Your task to perform on an android device: open a bookmark in the chrome app Image 0: 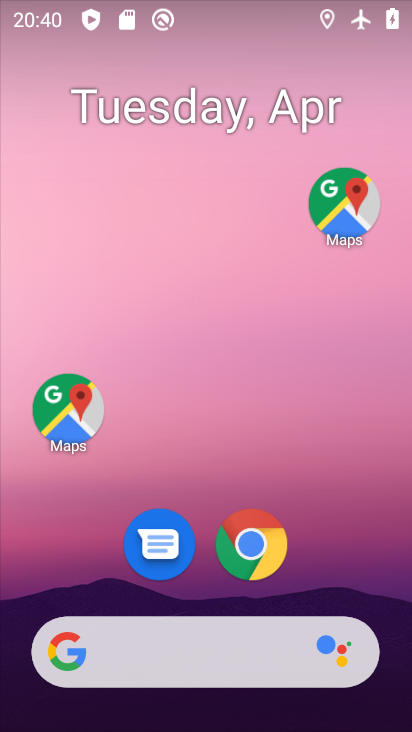
Step 0: drag from (142, 657) to (299, 31)
Your task to perform on an android device: open a bookmark in the chrome app Image 1: 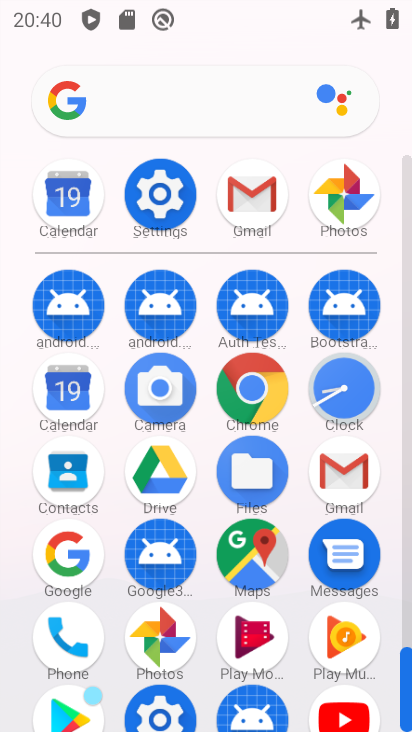
Step 1: drag from (190, 586) to (350, 172)
Your task to perform on an android device: open a bookmark in the chrome app Image 2: 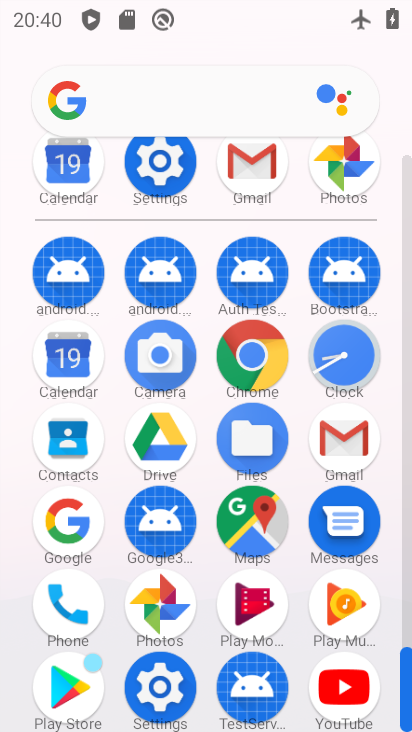
Step 2: click (267, 363)
Your task to perform on an android device: open a bookmark in the chrome app Image 3: 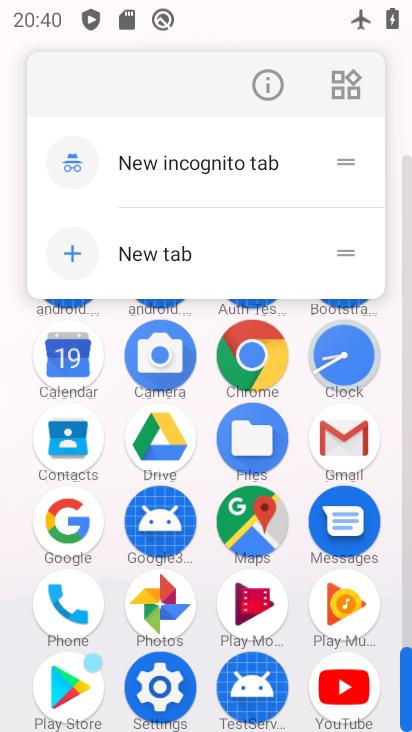
Step 3: click (253, 360)
Your task to perform on an android device: open a bookmark in the chrome app Image 4: 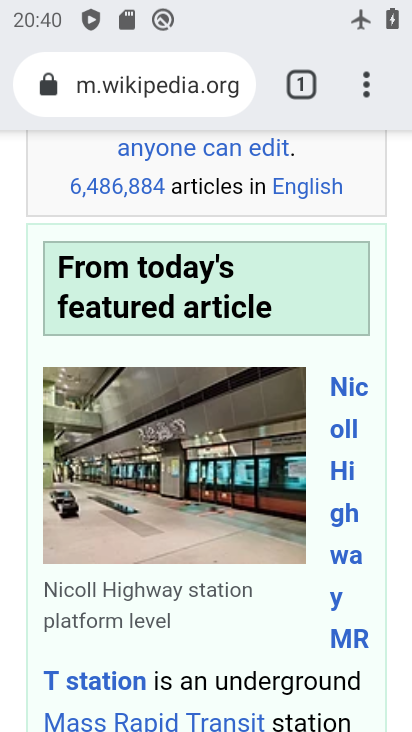
Step 4: click (366, 90)
Your task to perform on an android device: open a bookmark in the chrome app Image 5: 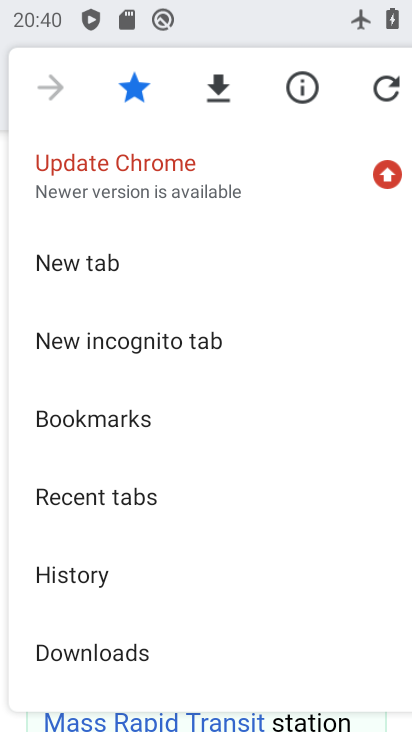
Step 5: click (125, 411)
Your task to perform on an android device: open a bookmark in the chrome app Image 6: 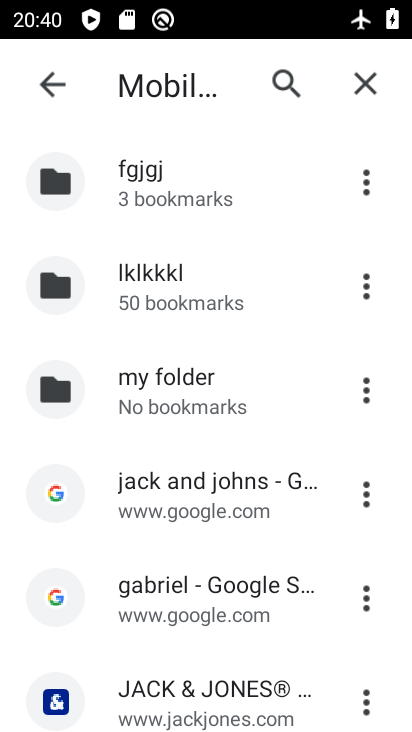
Step 6: task complete